Your task to perform on an android device: open app "Microsoft Outlook" (install if not already installed) Image 0: 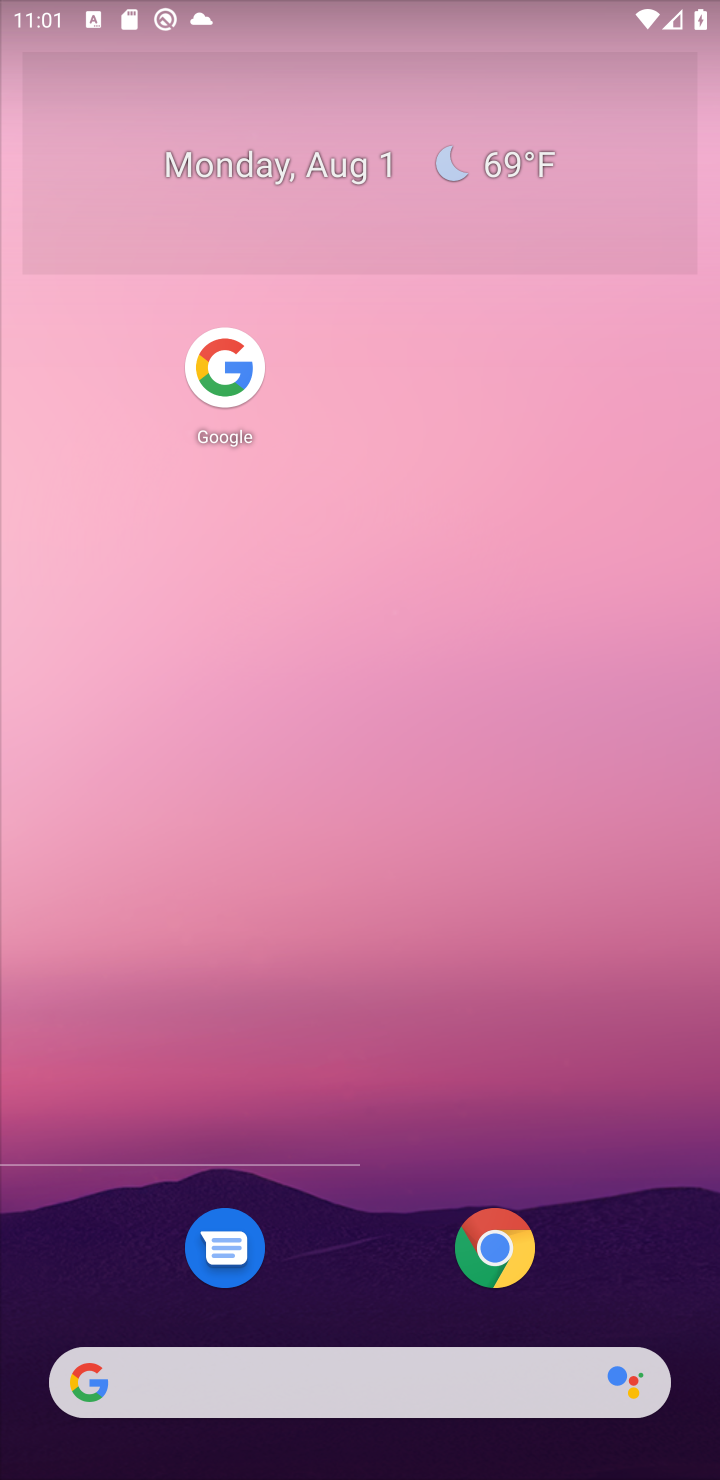
Step 0: drag from (414, 834) to (490, 150)
Your task to perform on an android device: open app "Microsoft Outlook" (install if not already installed) Image 1: 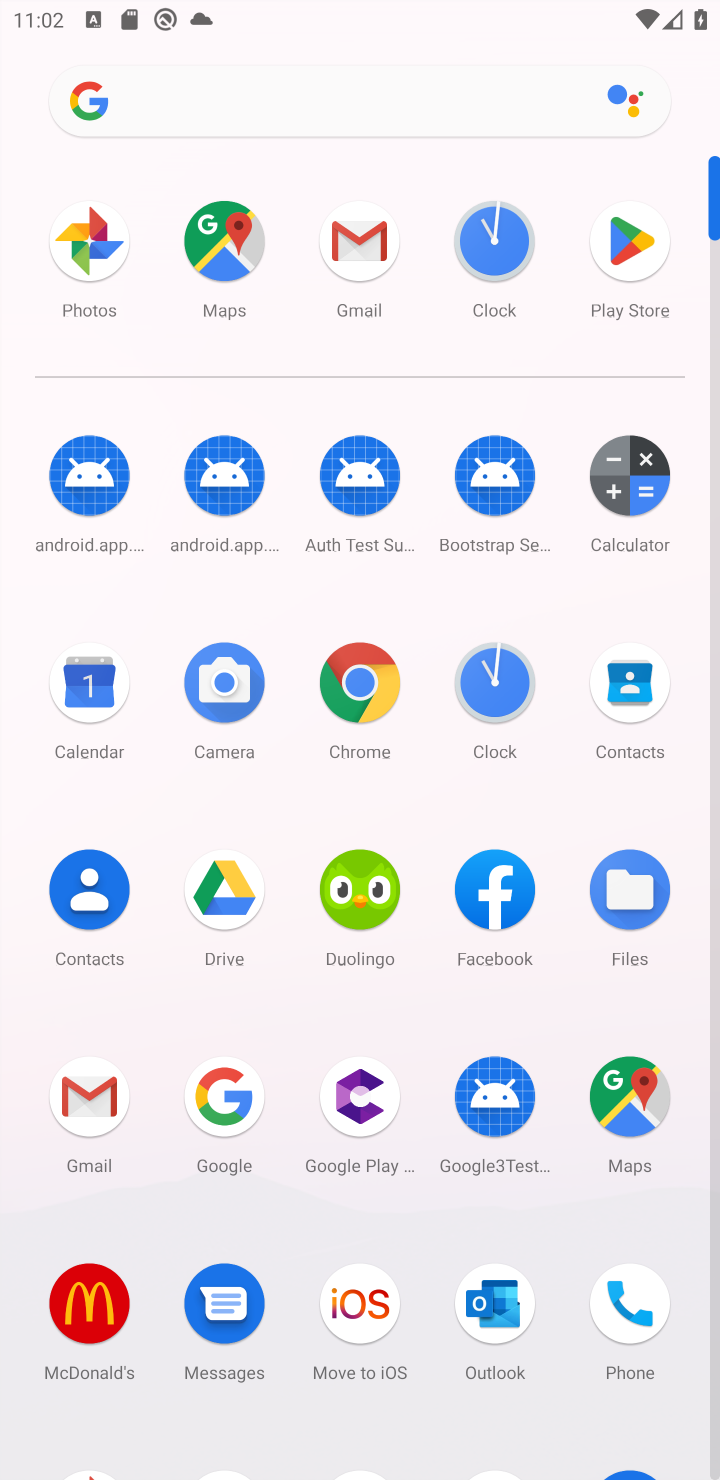
Step 1: drag from (429, 953) to (509, 455)
Your task to perform on an android device: open app "Microsoft Outlook" (install if not already installed) Image 2: 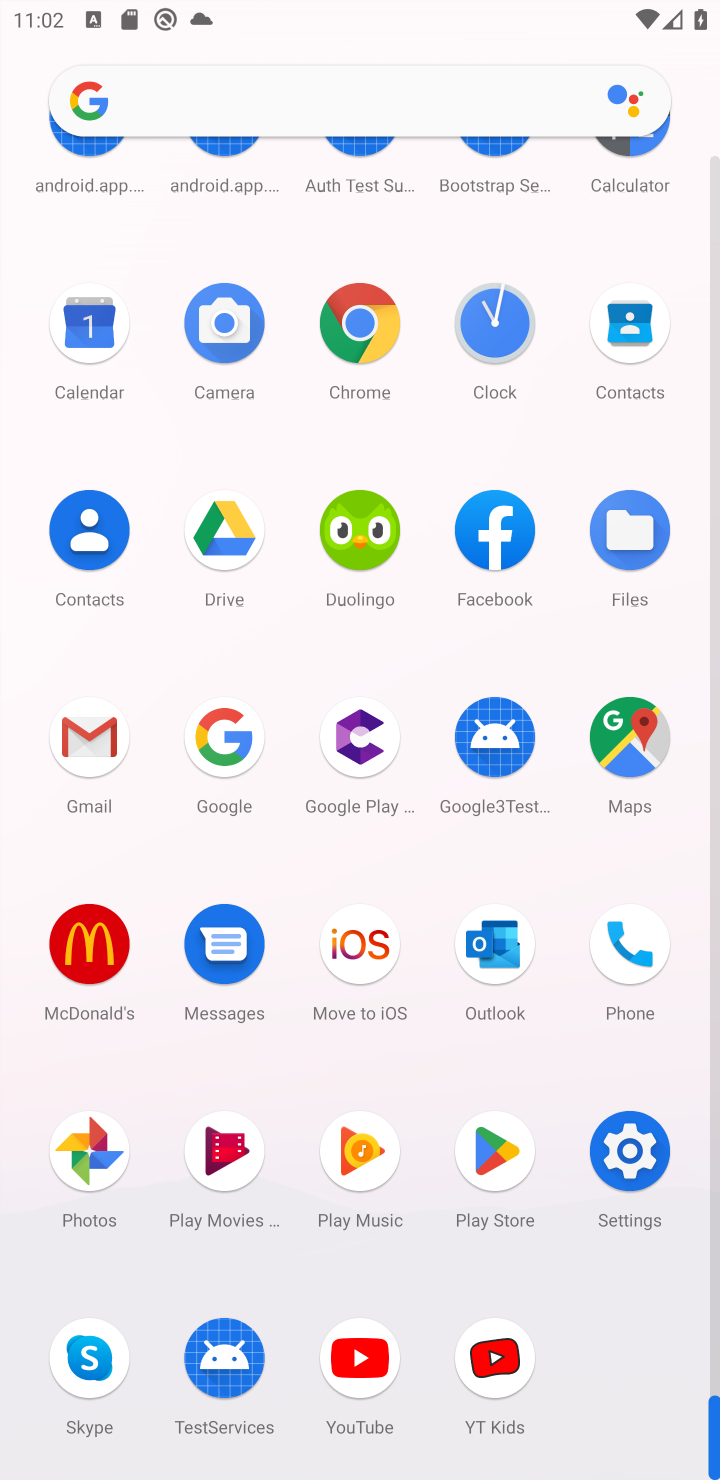
Step 2: click (491, 1160)
Your task to perform on an android device: open app "Microsoft Outlook" (install if not already installed) Image 3: 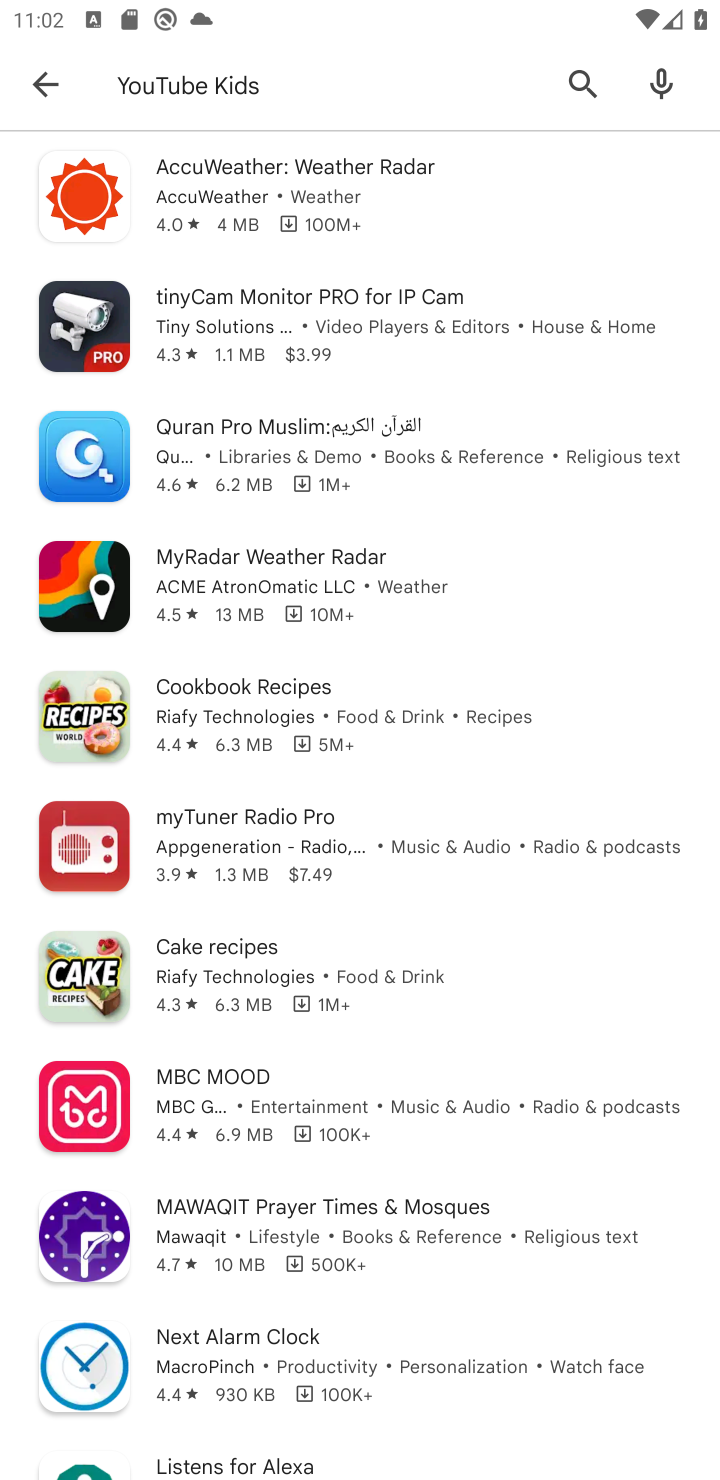
Step 3: click (404, 93)
Your task to perform on an android device: open app "Microsoft Outlook" (install if not already installed) Image 4: 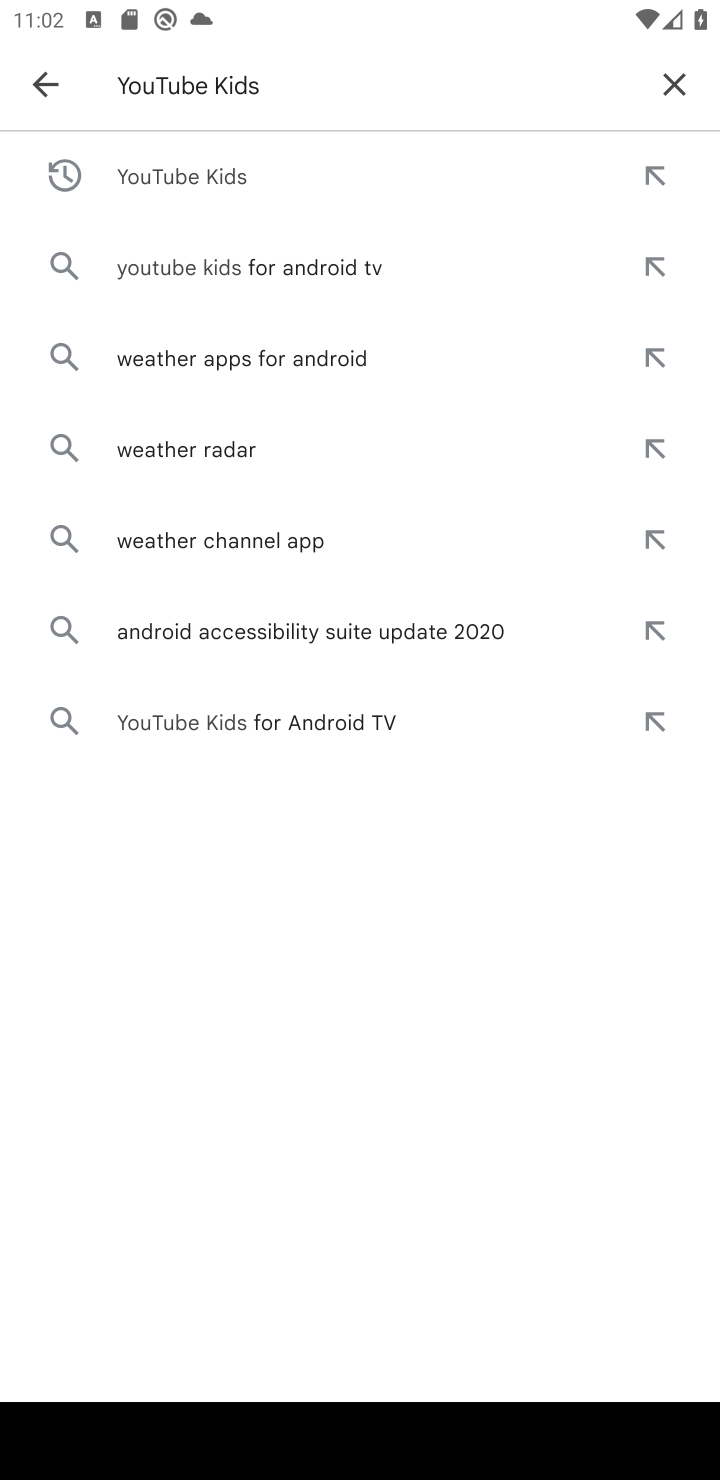
Step 4: click (671, 84)
Your task to perform on an android device: open app "Microsoft Outlook" (install if not already installed) Image 5: 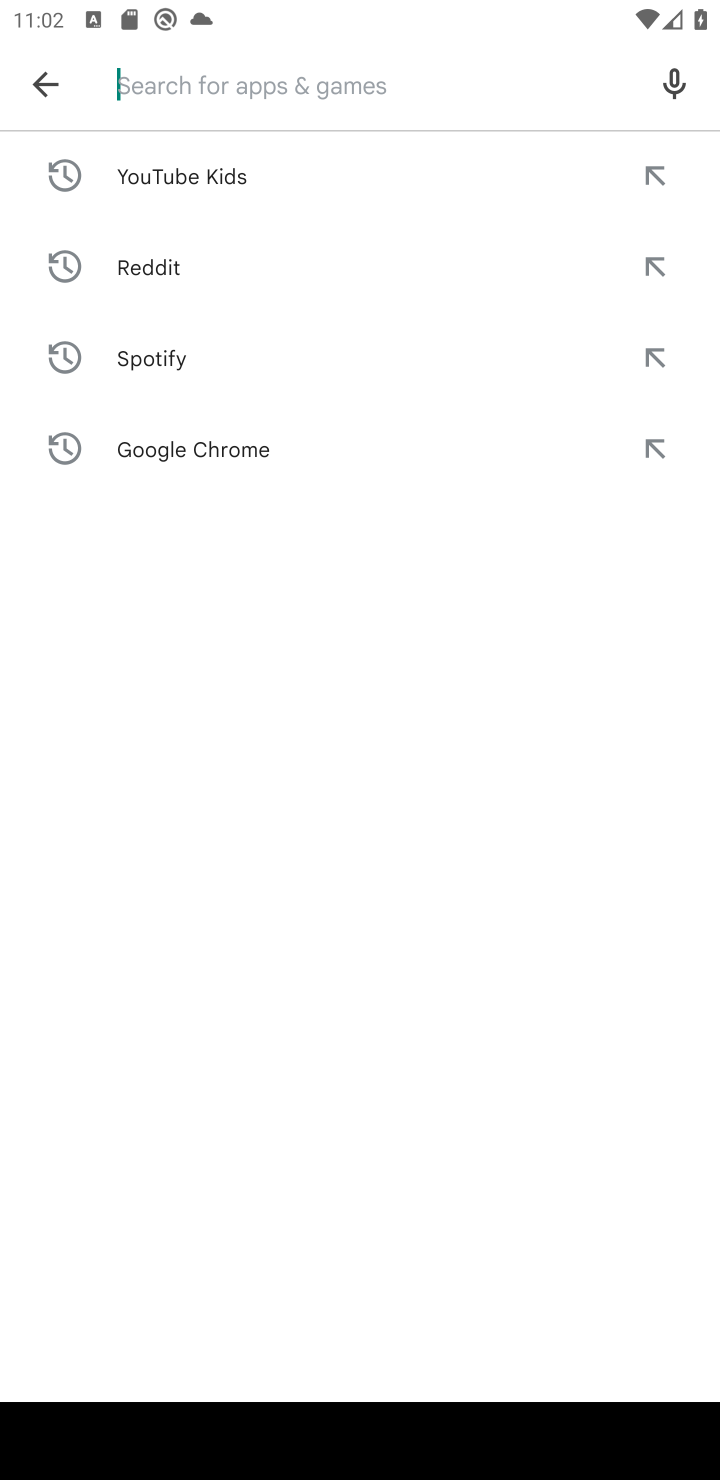
Step 5: type "Microsoft Outlook"
Your task to perform on an android device: open app "Microsoft Outlook" (install if not already installed) Image 6: 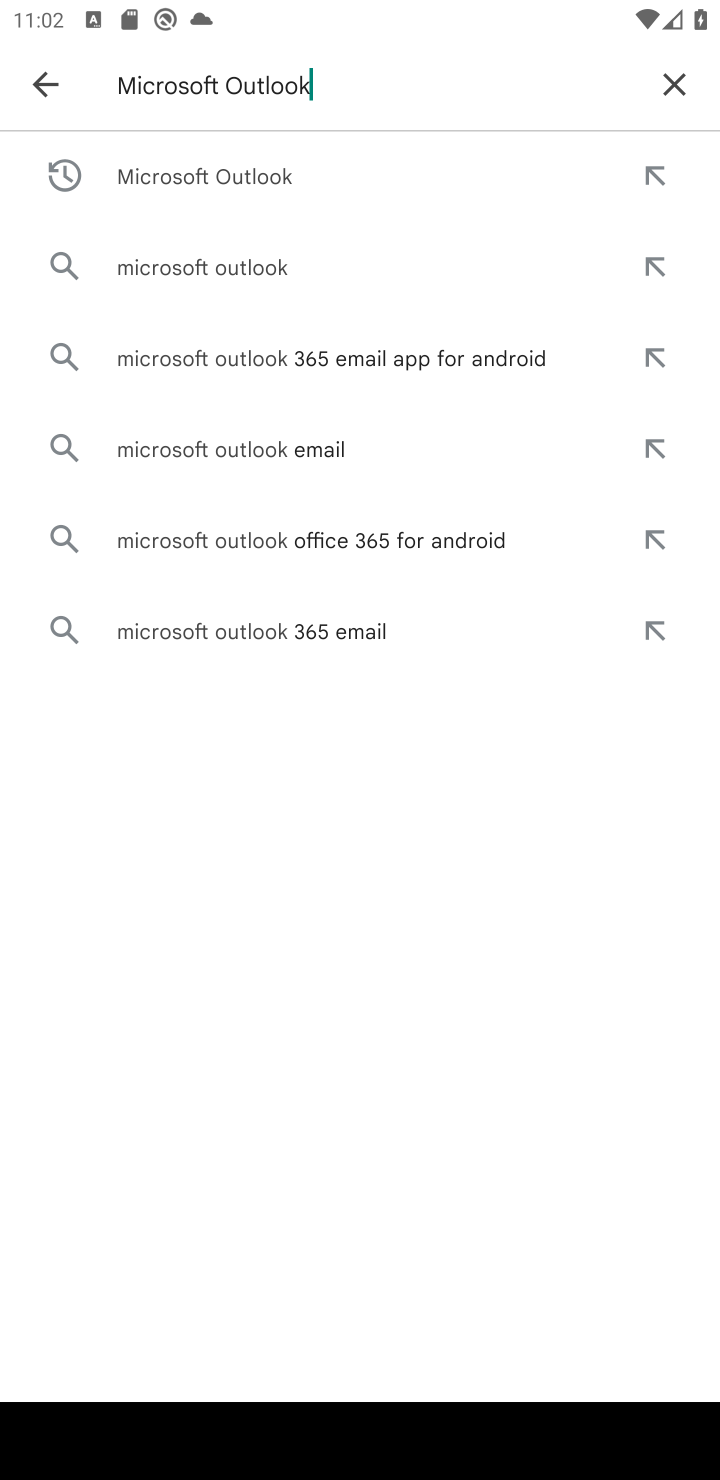
Step 6: press enter
Your task to perform on an android device: open app "Microsoft Outlook" (install if not already installed) Image 7: 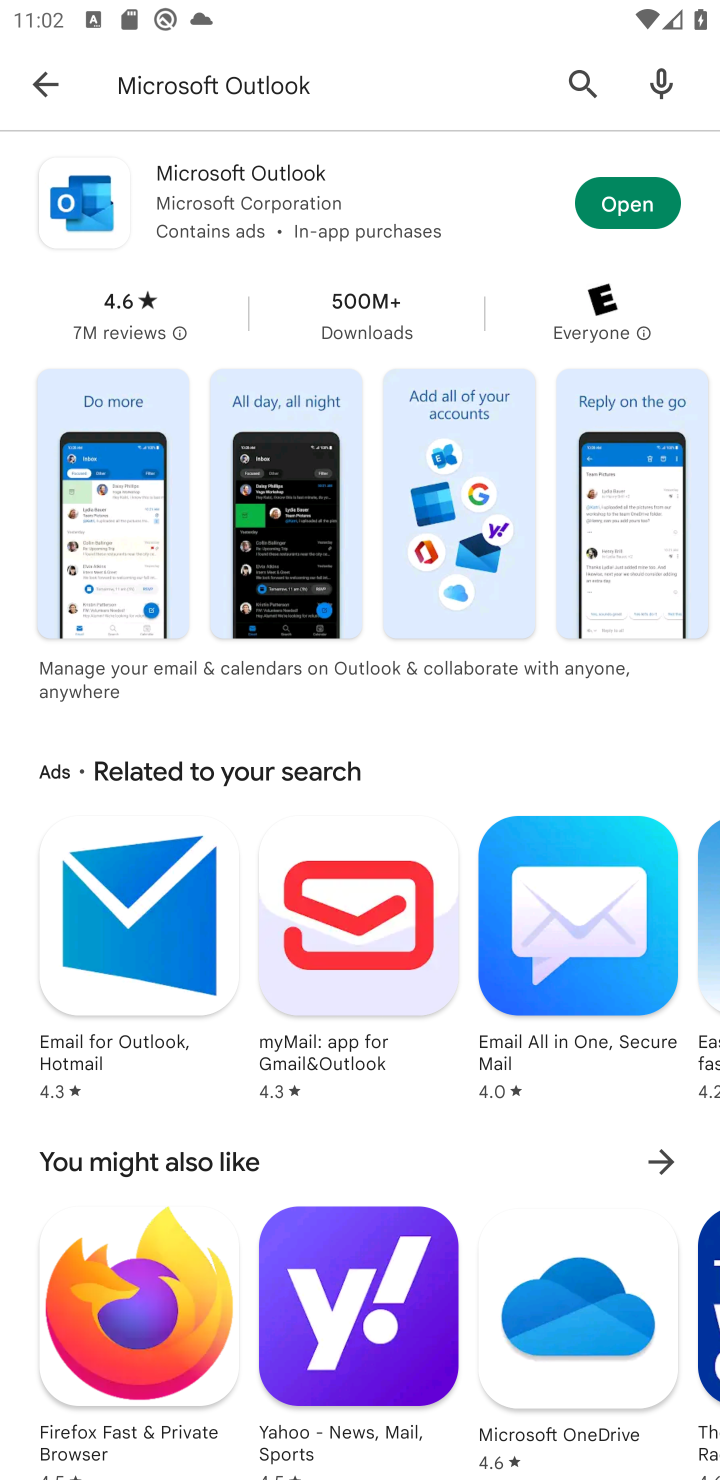
Step 7: click (643, 205)
Your task to perform on an android device: open app "Microsoft Outlook" (install if not already installed) Image 8: 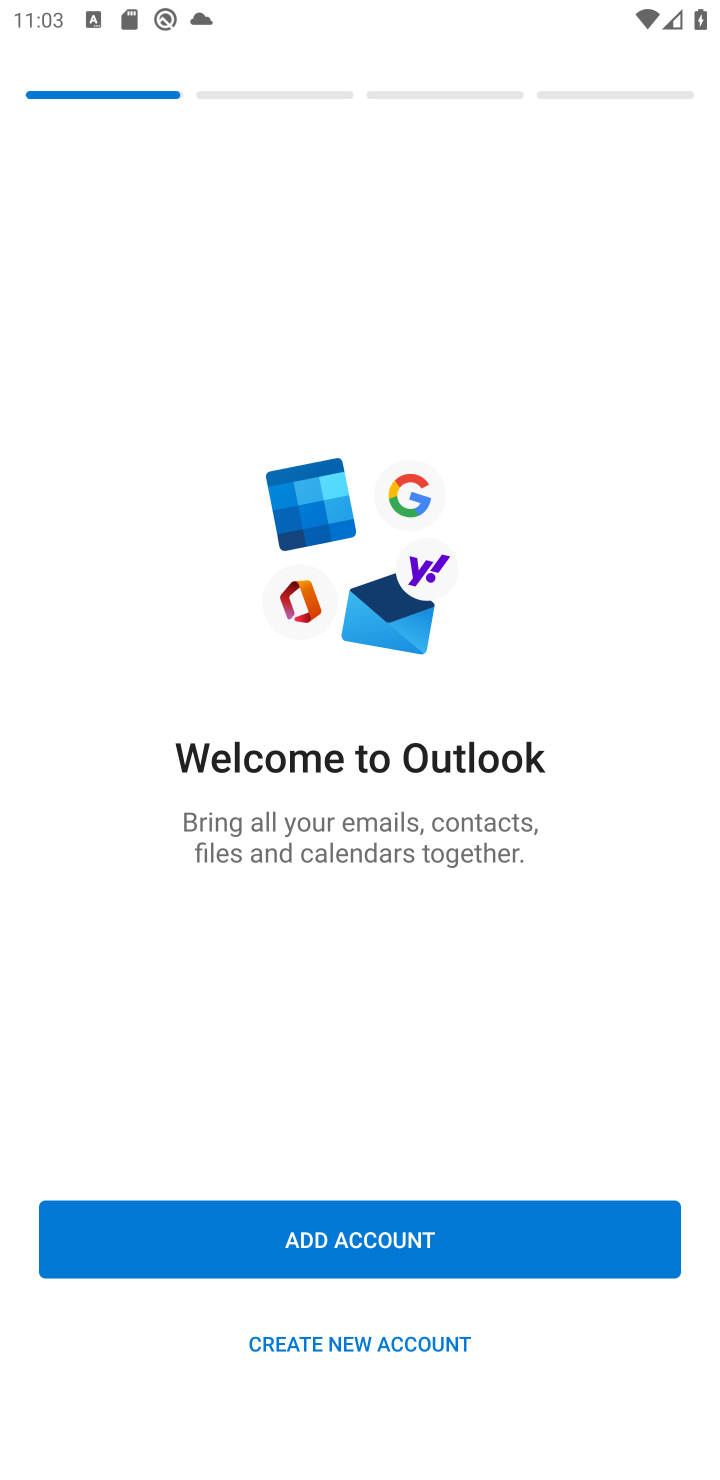
Step 8: task complete